Your task to perform on an android device: What's the weather going to be this weekend? Image 0: 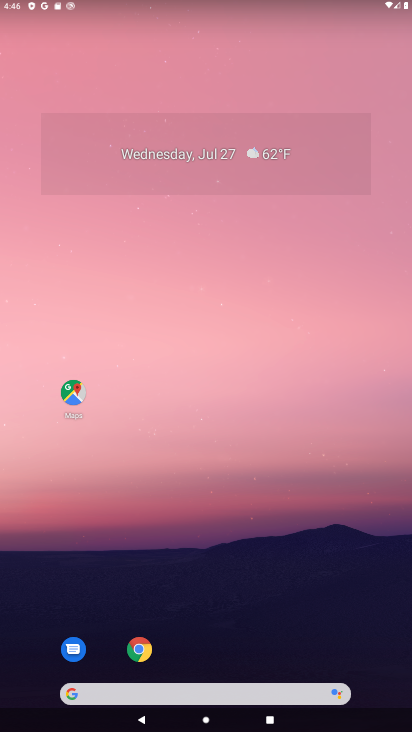
Step 0: click (160, 690)
Your task to perform on an android device: What's the weather going to be this weekend? Image 1: 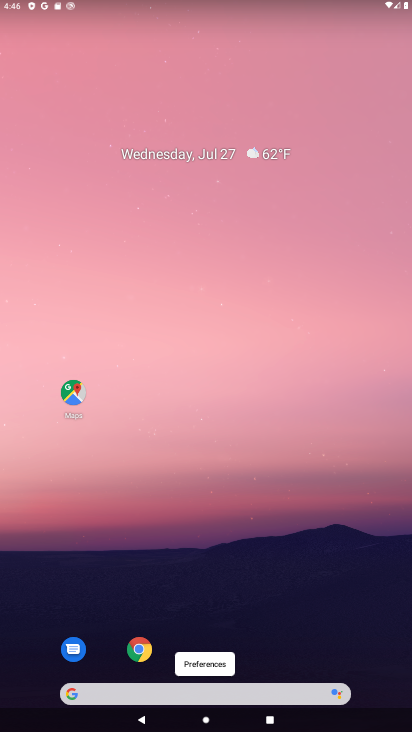
Step 1: click (247, 693)
Your task to perform on an android device: What's the weather going to be this weekend? Image 2: 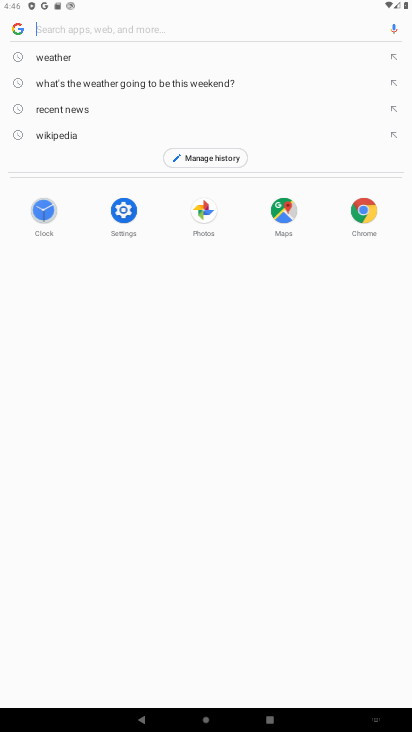
Step 2: type "What's the weather going to be this weekend?"
Your task to perform on an android device: What's the weather going to be this weekend? Image 3: 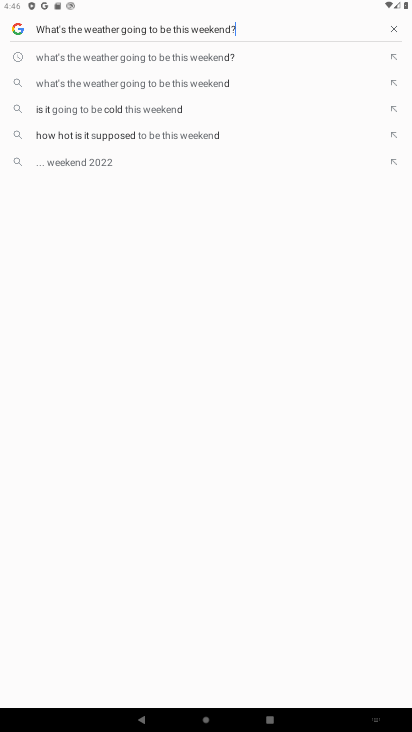
Step 3: press enter
Your task to perform on an android device: What's the weather going to be this weekend? Image 4: 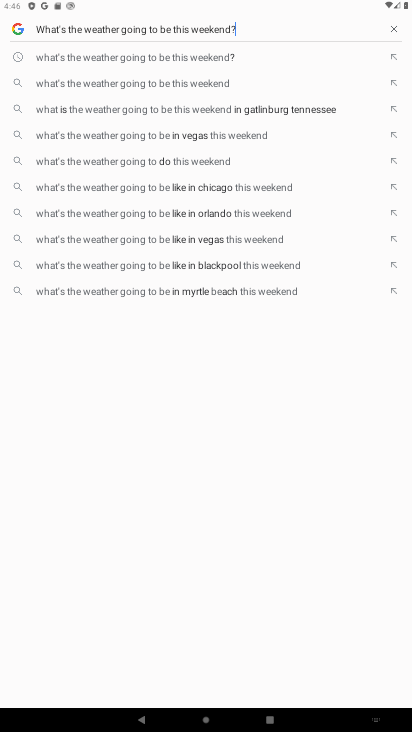
Step 4: type ""
Your task to perform on an android device: What's the weather going to be this weekend? Image 5: 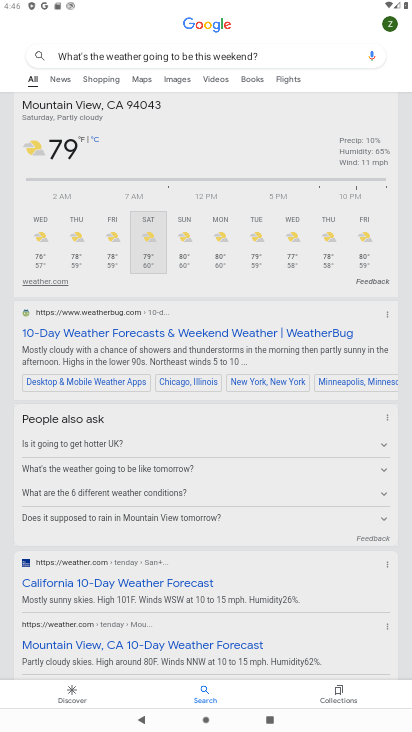
Step 5: task complete